Your task to perform on an android device: Clear all items from cart on newegg. Search for "beats solo 3" on newegg, select the first entry, and add it to the cart. Image 0: 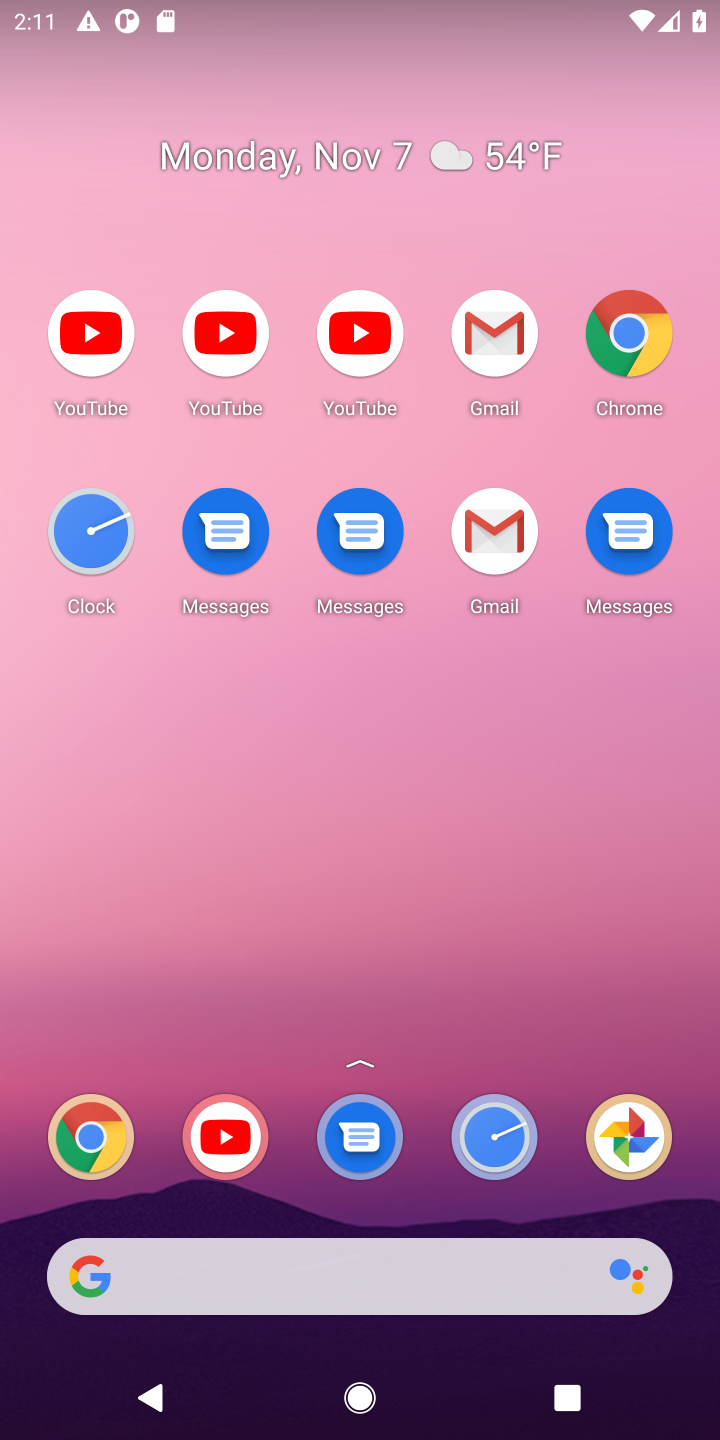
Step 0: drag from (431, 1058) to (338, 156)
Your task to perform on an android device: Clear all items from cart on newegg. Search for "beats solo 3" on newegg, select the first entry, and add it to the cart. Image 1: 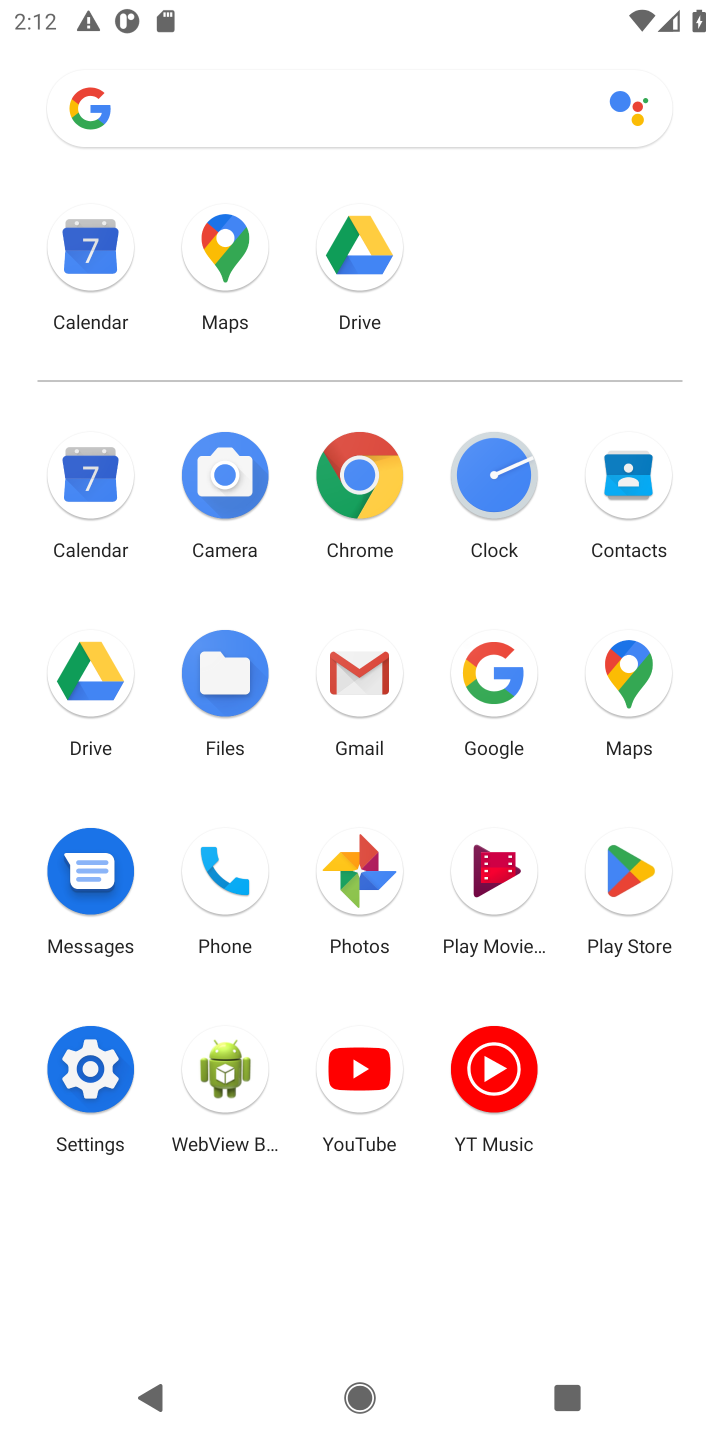
Step 1: click (351, 477)
Your task to perform on an android device: Clear all items from cart on newegg. Search for "beats solo 3" on newegg, select the first entry, and add it to the cart. Image 2: 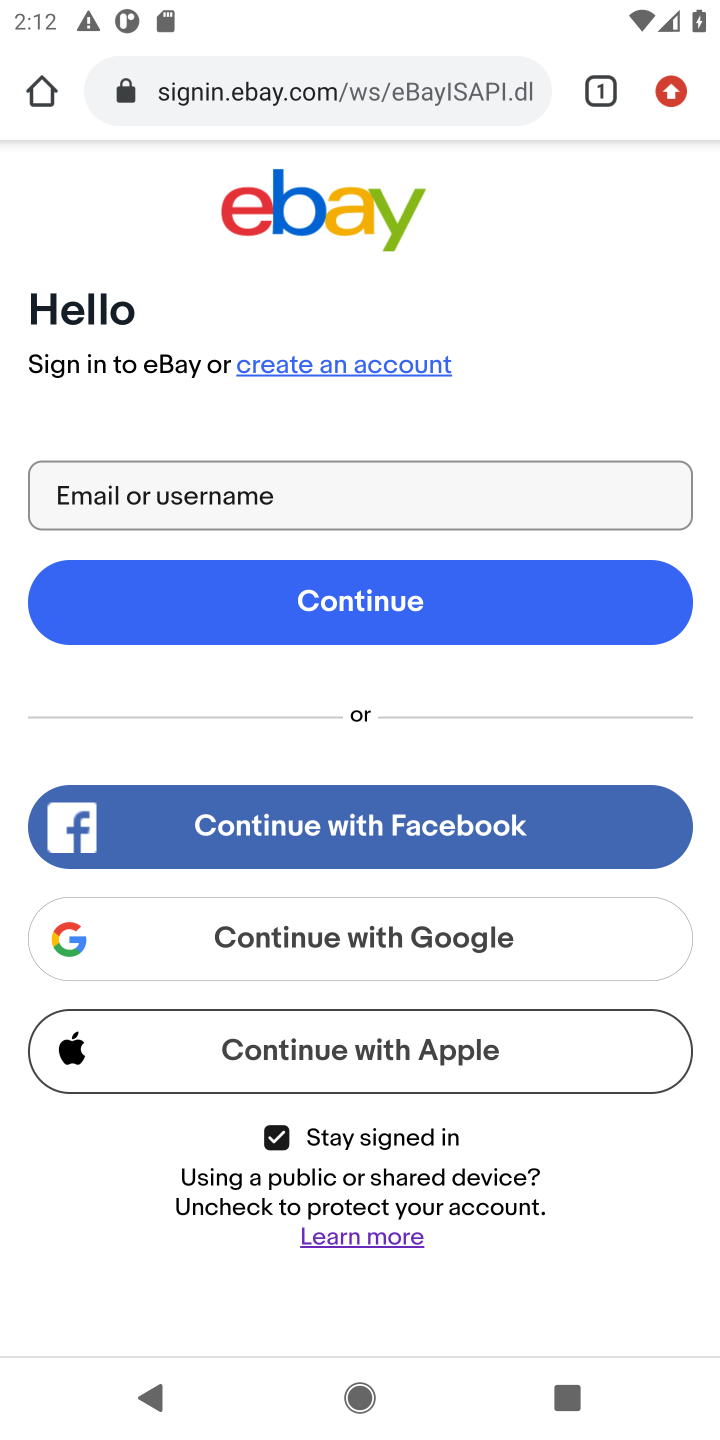
Step 2: click (470, 97)
Your task to perform on an android device: Clear all items from cart on newegg. Search for "beats solo 3" on newegg, select the first entry, and add it to the cart. Image 3: 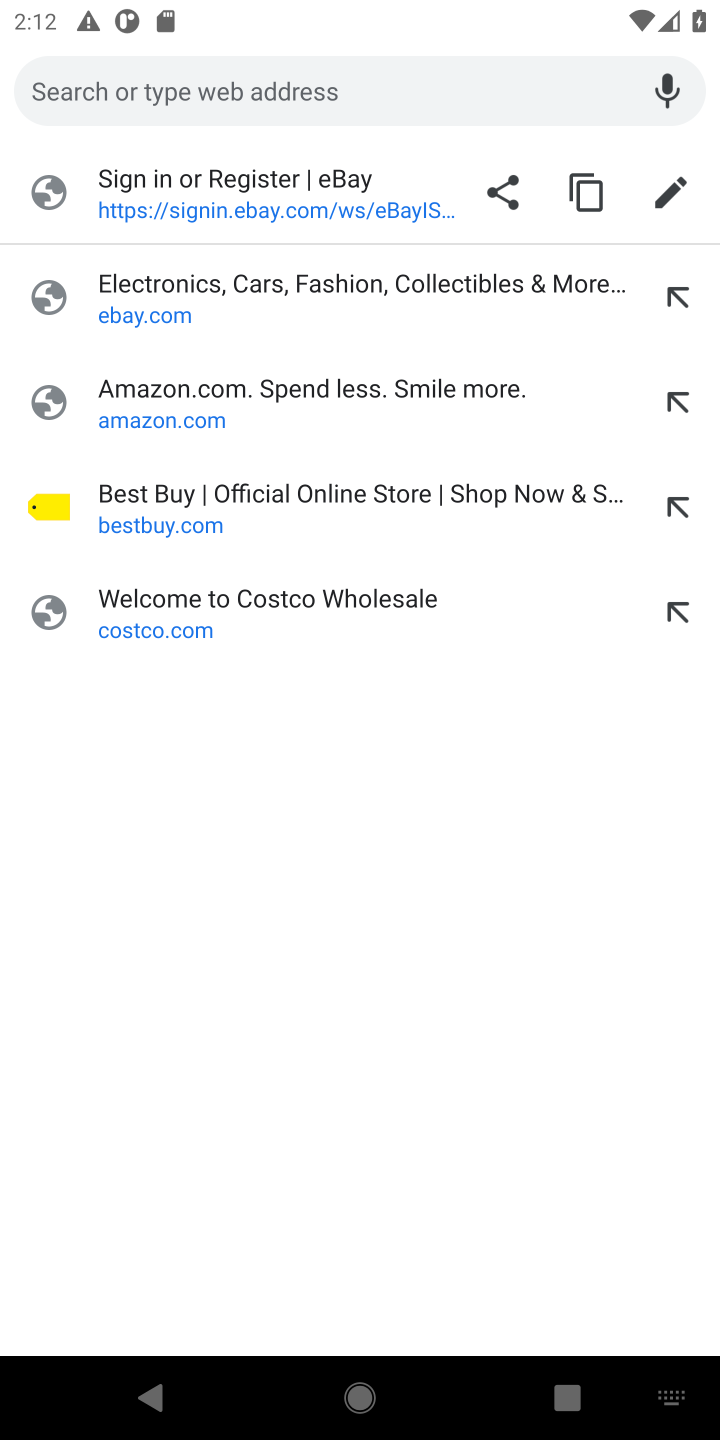
Step 3: type "newegg.com"
Your task to perform on an android device: Clear all items from cart on newegg. Search for "beats solo 3" on newegg, select the first entry, and add it to the cart. Image 4: 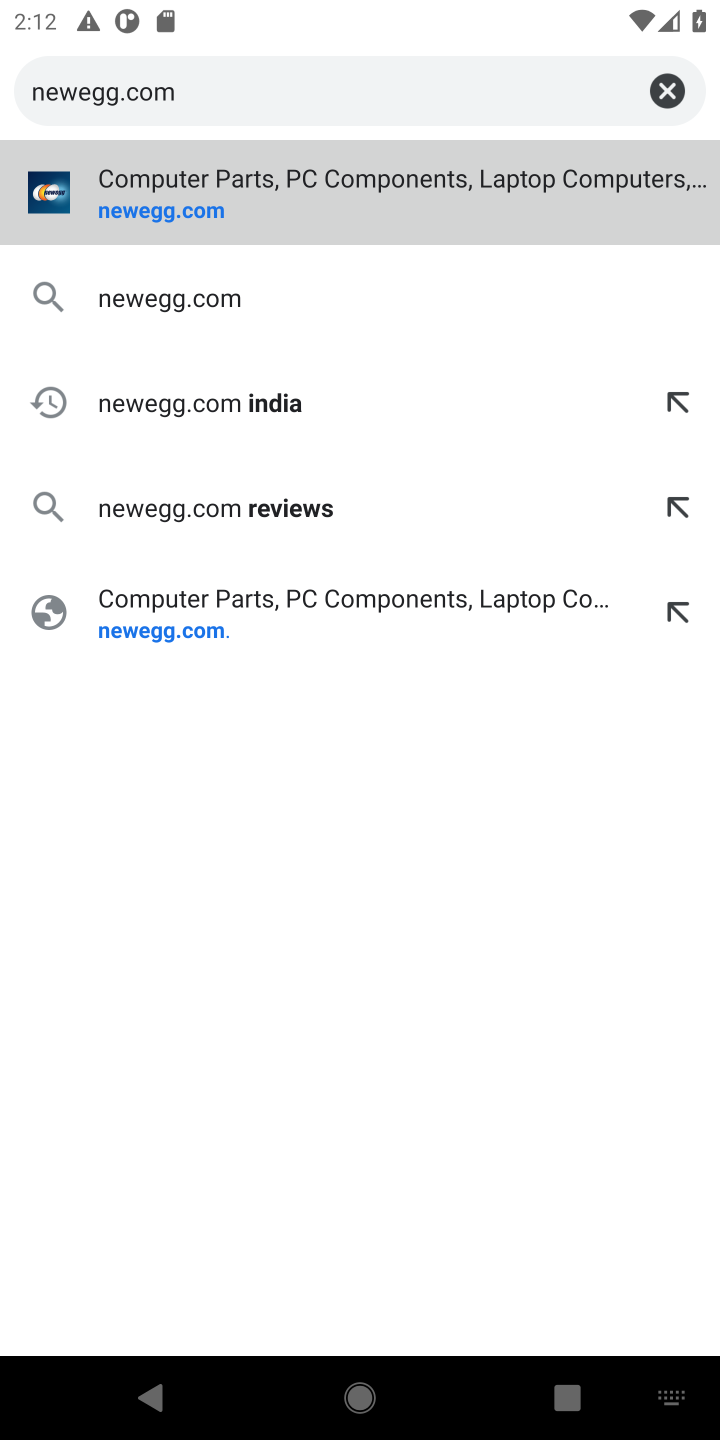
Step 4: press enter
Your task to perform on an android device: Clear all items from cart on newegg. Search for "beats solo 3" on newegg, select the first entry, and add it to the cart. Image 5: 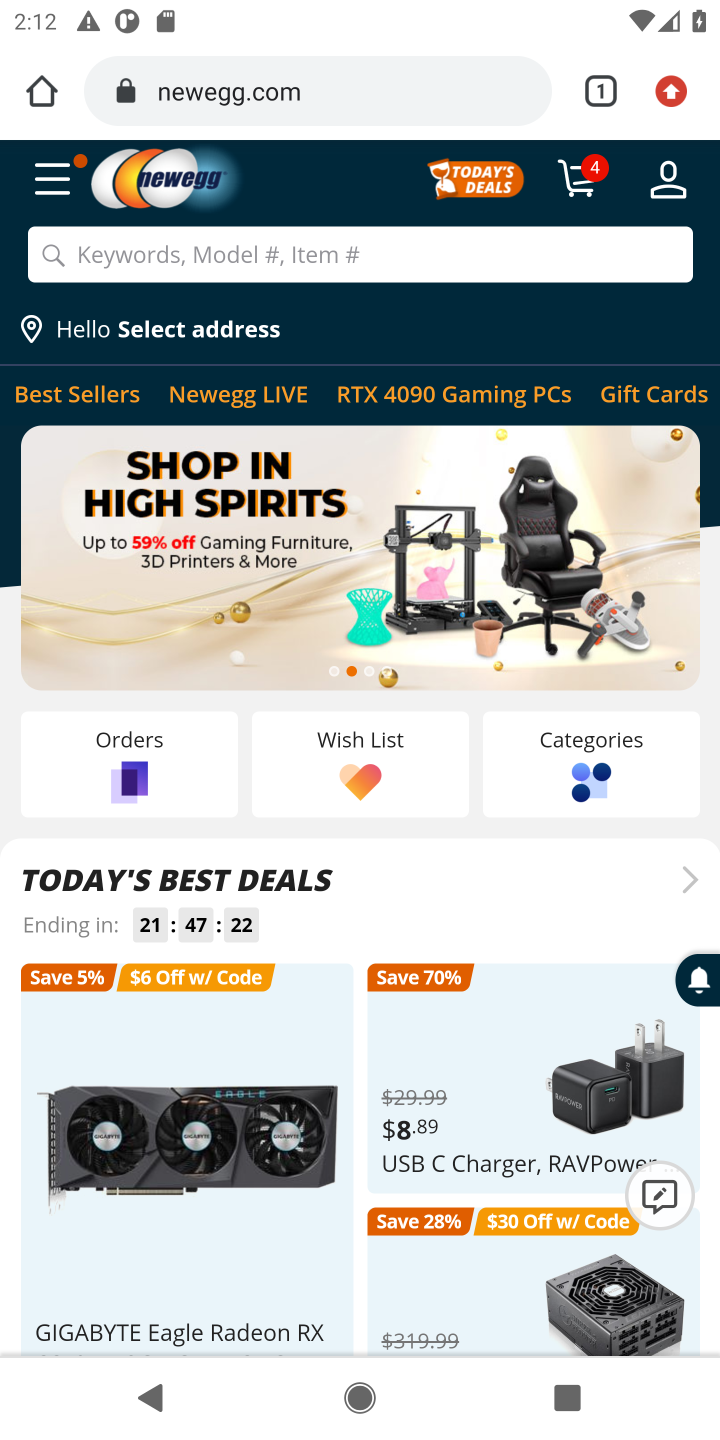
Step 5: click (588, 185)
Your task to perform on an android device: Clear all items from cart on newegg. Search for "beats solo 3" on newegg, select the first entry, and add it to the cart. Image 6: 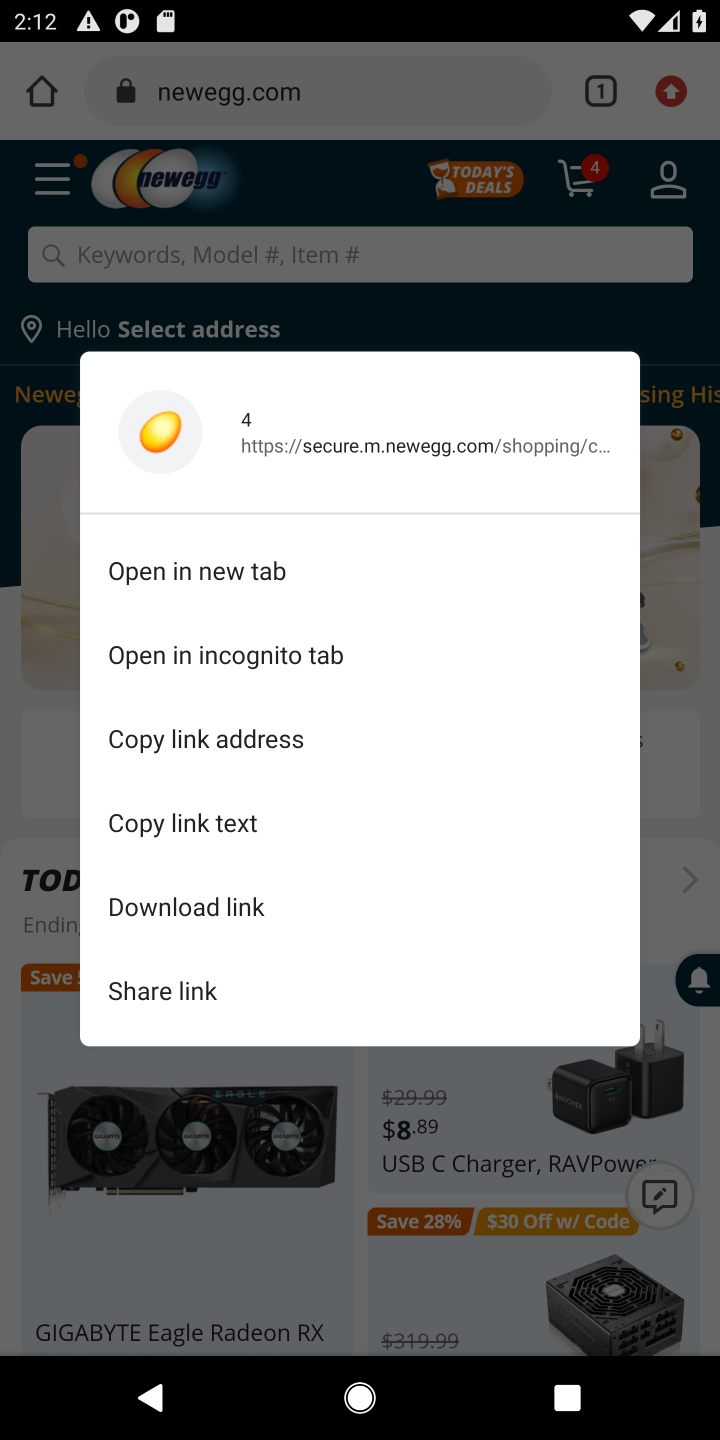
Step 6: click (677, 691)
Your task to perform on an android device: Clear all items from cart on newegg. Search for "beats solo 3" on newegg, select the first entry, and add it to the cart. Image 7: 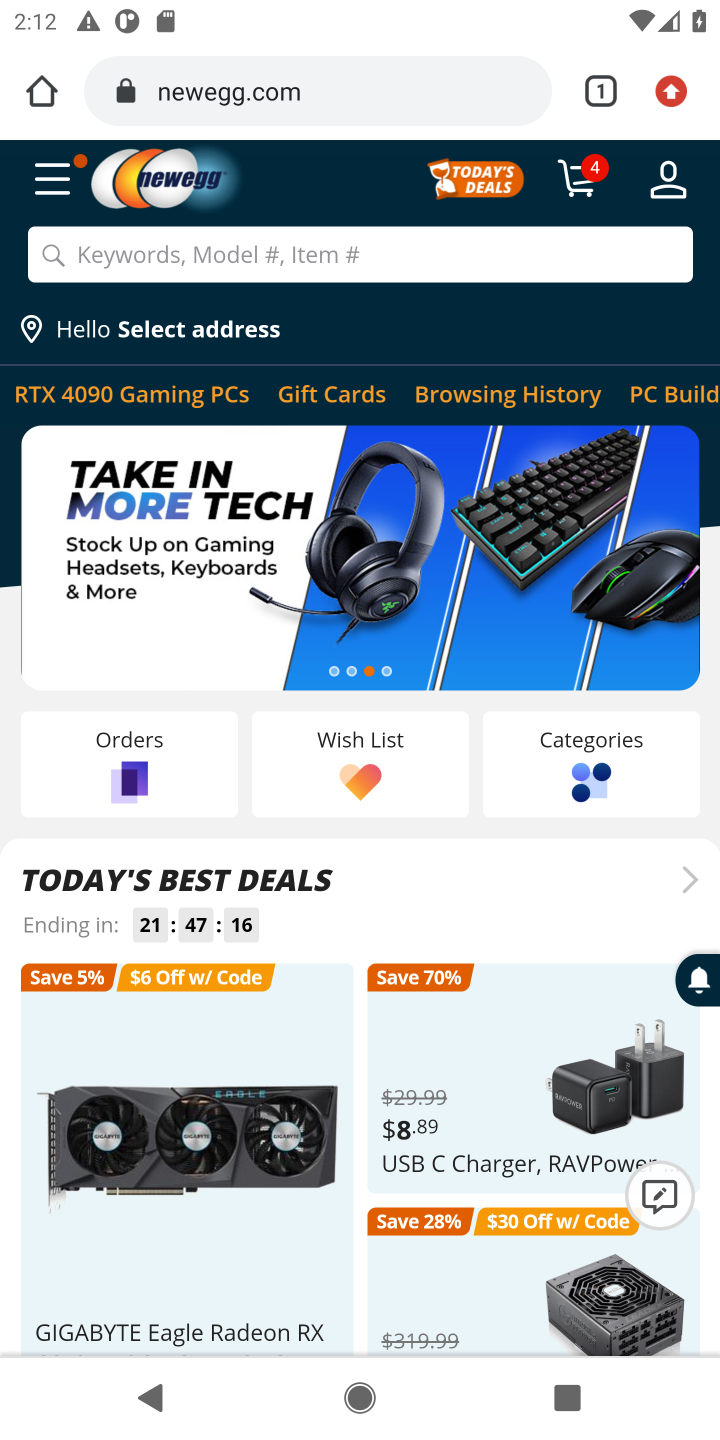
Step 7: click (580, 174)
Your task to perform on an android device: Clear all items from cart on newegg. Search for "beats solo 3" on newegg, select the first entry, and add it to the cart. Image 8: 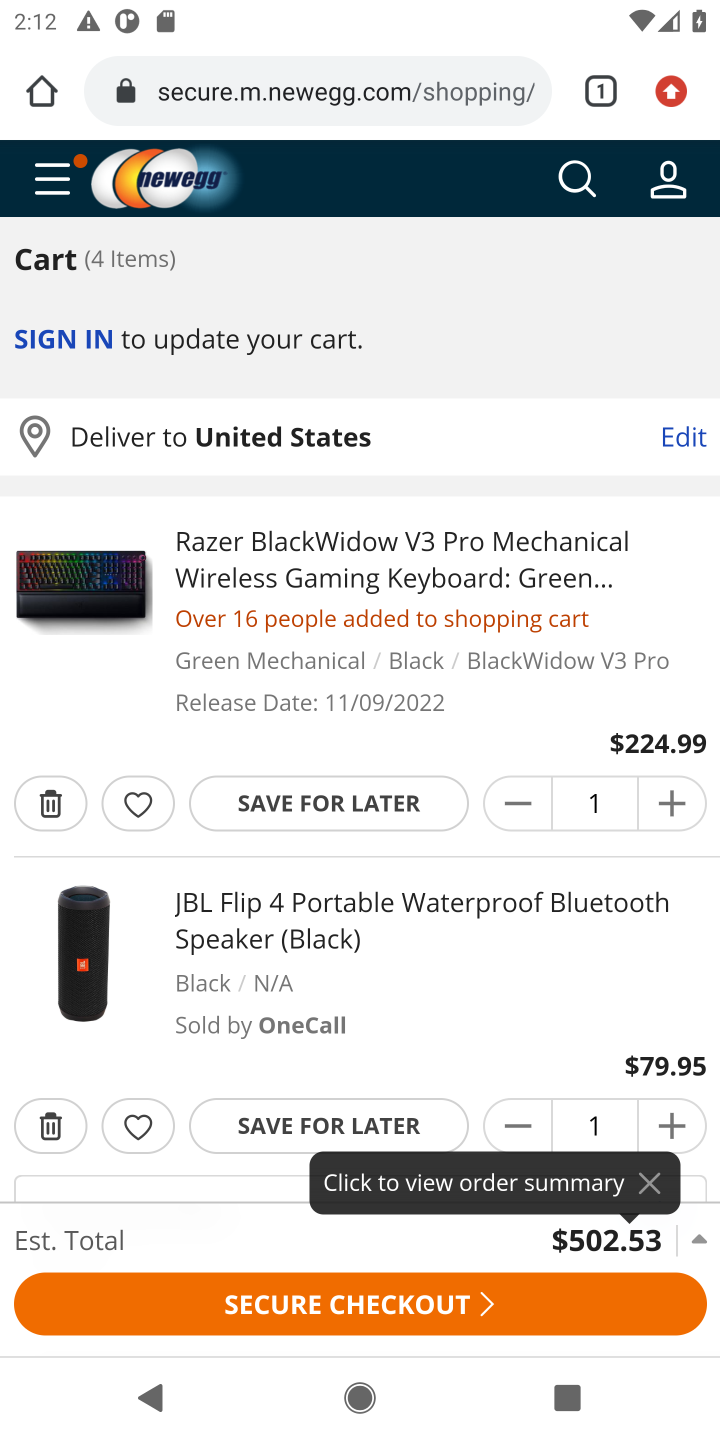
Step 8: click (58, 806)
Your task to perform on an android device: Clear all items from cart on newegg. Search for "beats solo 3" on newegg, select the first entry, and add it to the cart. Image 9: 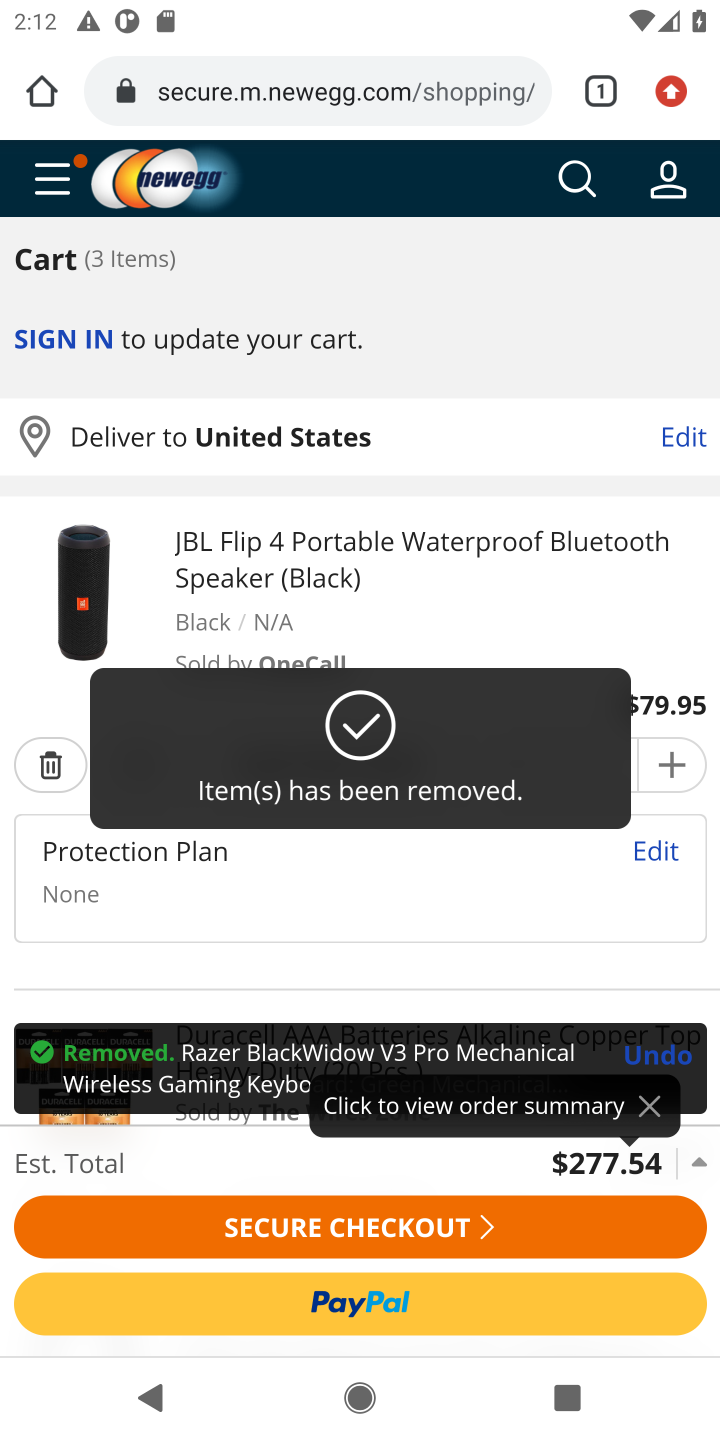
Step 9: click (54, 770)
Your task to perform on an android device: Clear all items from cart on newegg. Search for "beats solo 3" on newegg, select the first entry, and add it to the cart. Image 10: 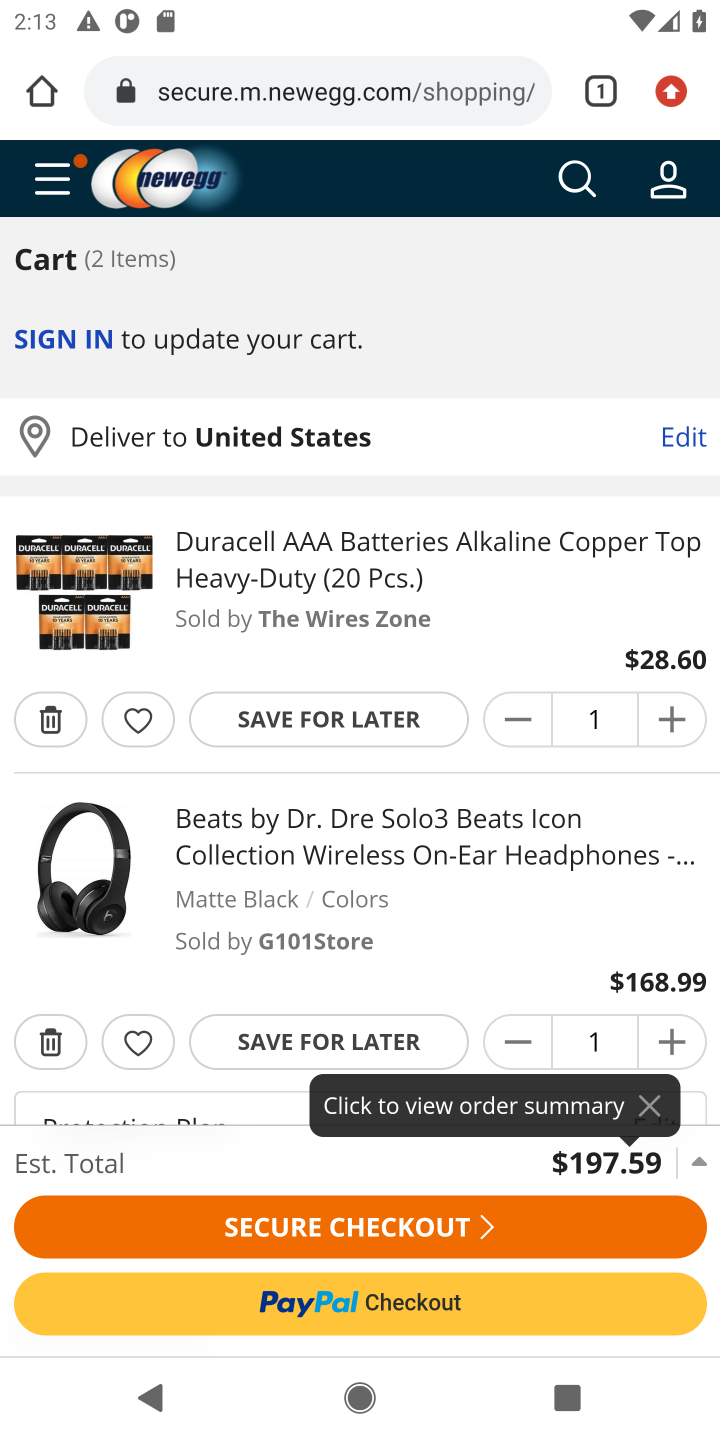
Step 10: click (55, 720)
Your task to perform on an android device: Clear all items from cart on newegg. Search for "beats solo 3" on newegg, select the first entry, and add it to the cart. Image 11: 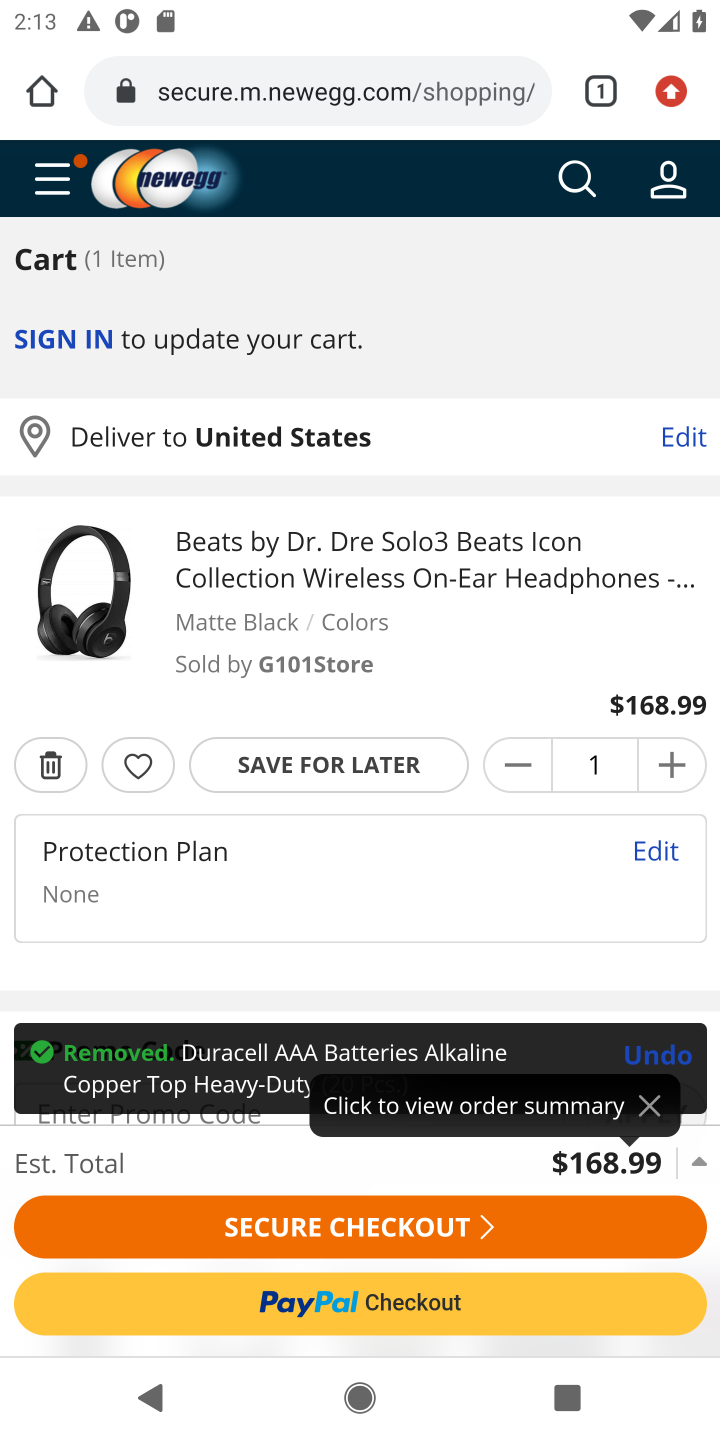
Step 11: click (54, 764)
Your task to perform on an android device: Clear all items from cart on newegg. Search for "beats solo 3" on newegg, select the first entry, and add it to the cart. Image 12: 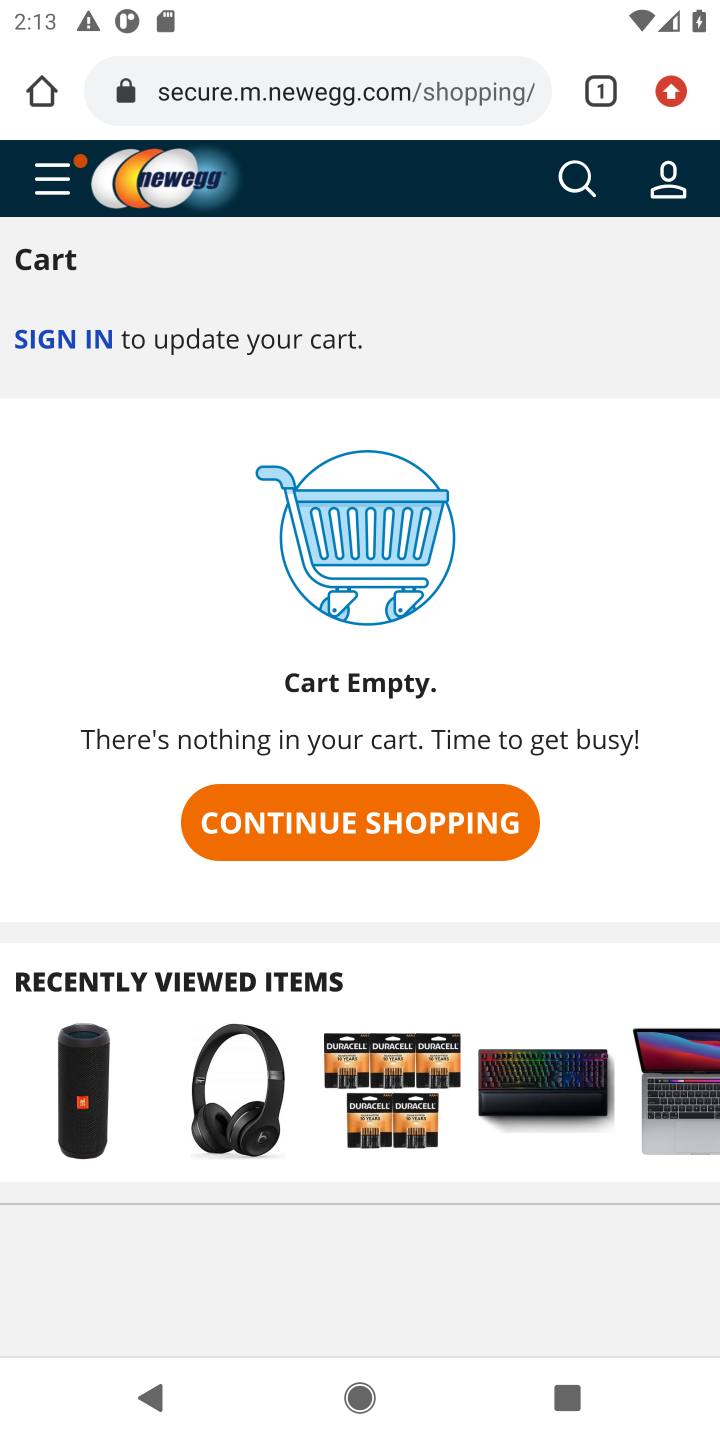
Step 12: click (391, 822)
Your task to perform on an android device: Clear all items from cart on newegg. Search for "beats solo 3" on newegg, select the first entry, and add it to the cart. Image 13: 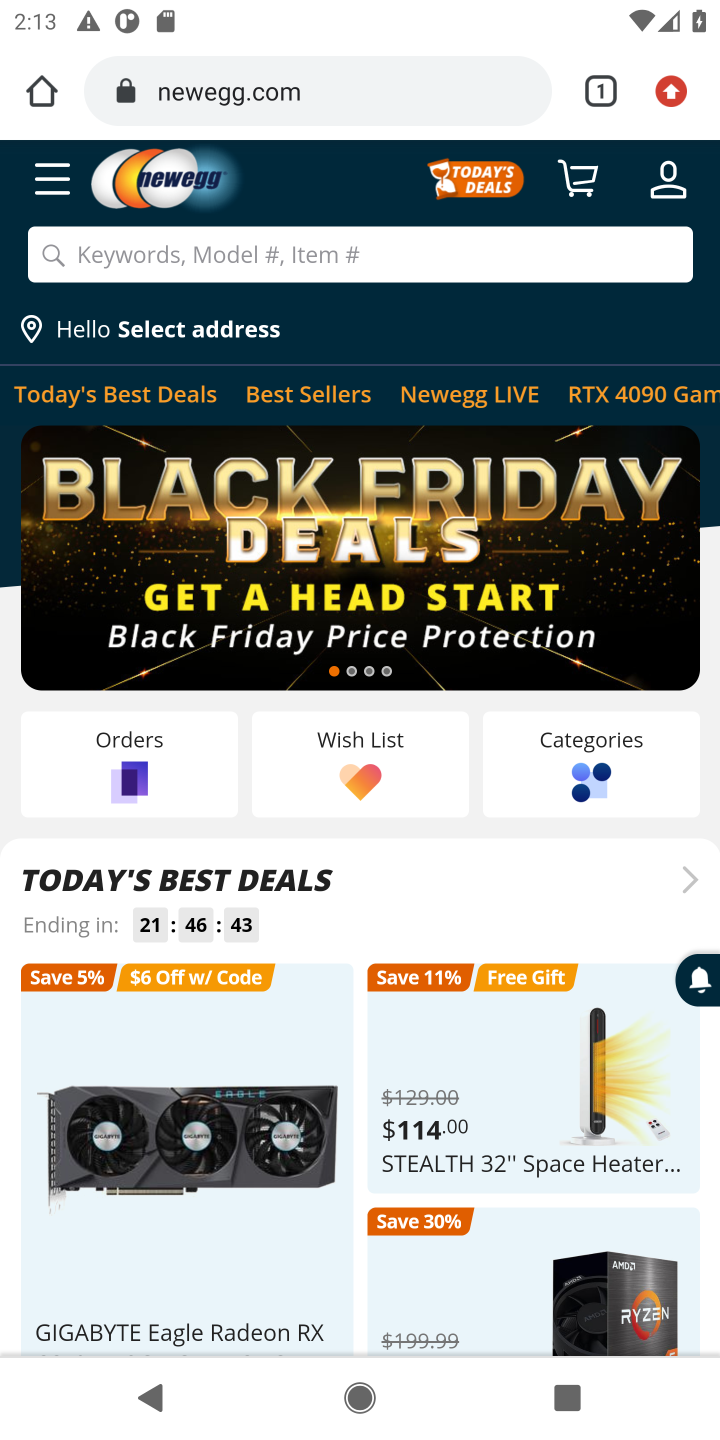
Step 13: click (337, 262)
Your task to perform on an android device: Clear all items from cart on newegg. Search for "beats solo 3" on newegg, select the first entry, and add it to the cart. Image 14: 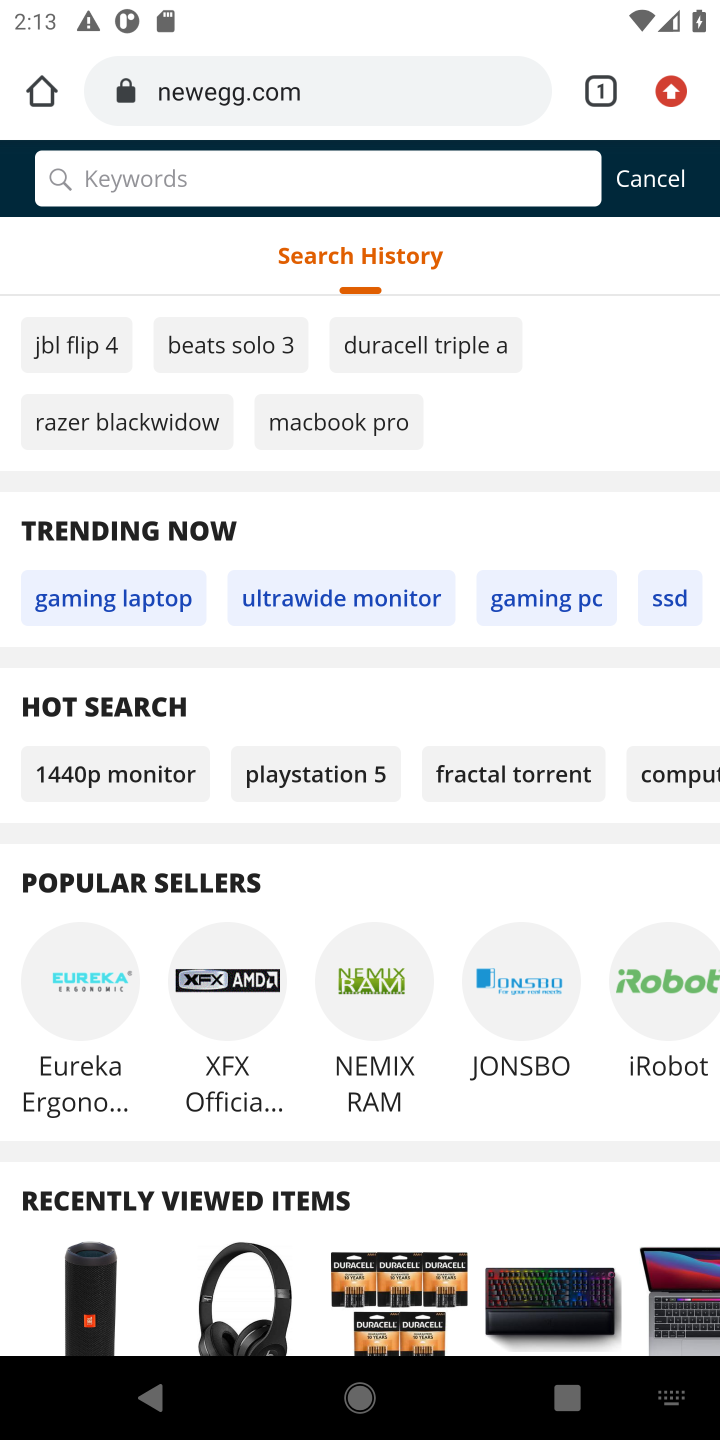
Step 14: type "beats solo 3"
Your task to perform on an android device: Clear all items from cart on newegg. Search for "beats solo 3" on newegg, select the first entry, and add it to the cart. Image 15: 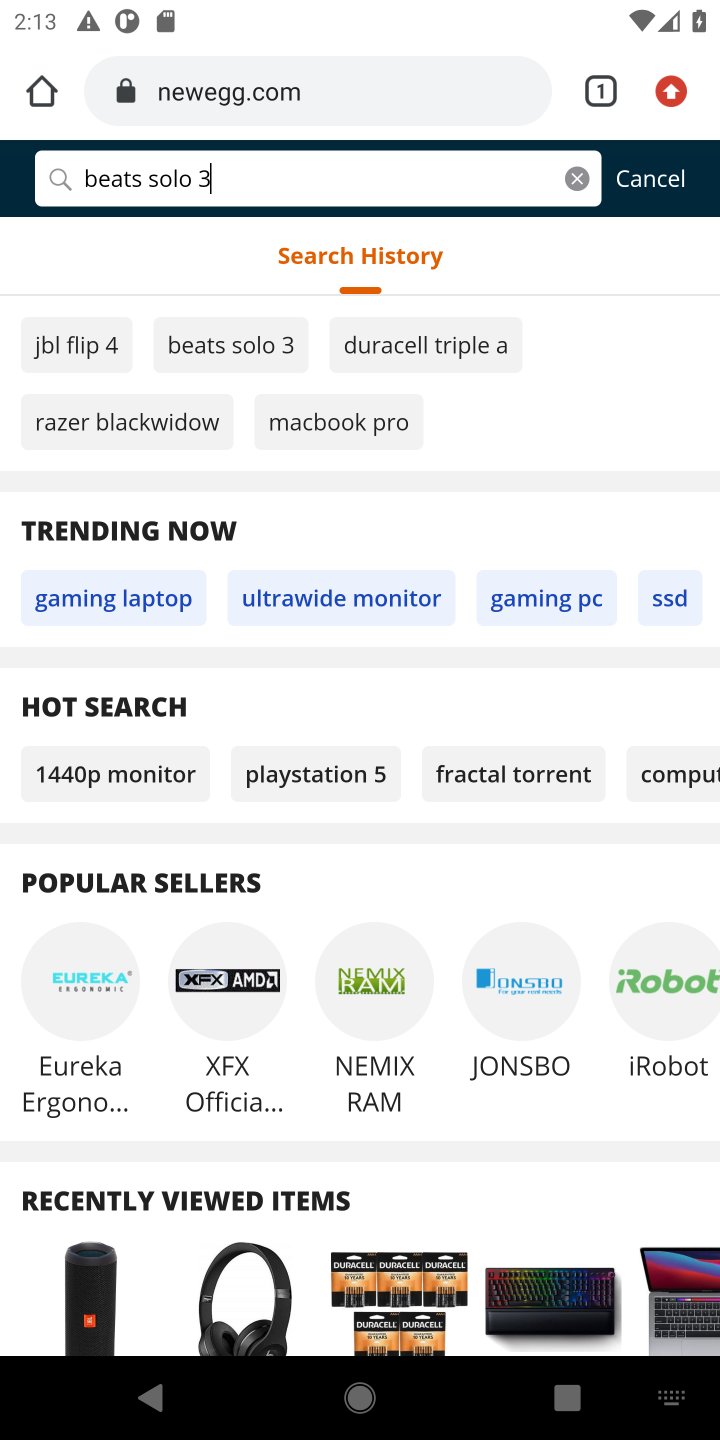
Step 15: press enter
Your task to perform on an android device: Clear all items from cart on newegg. Search for "beats solo 3" on newegg, select the first entry, and add it to the cart. Image 16: 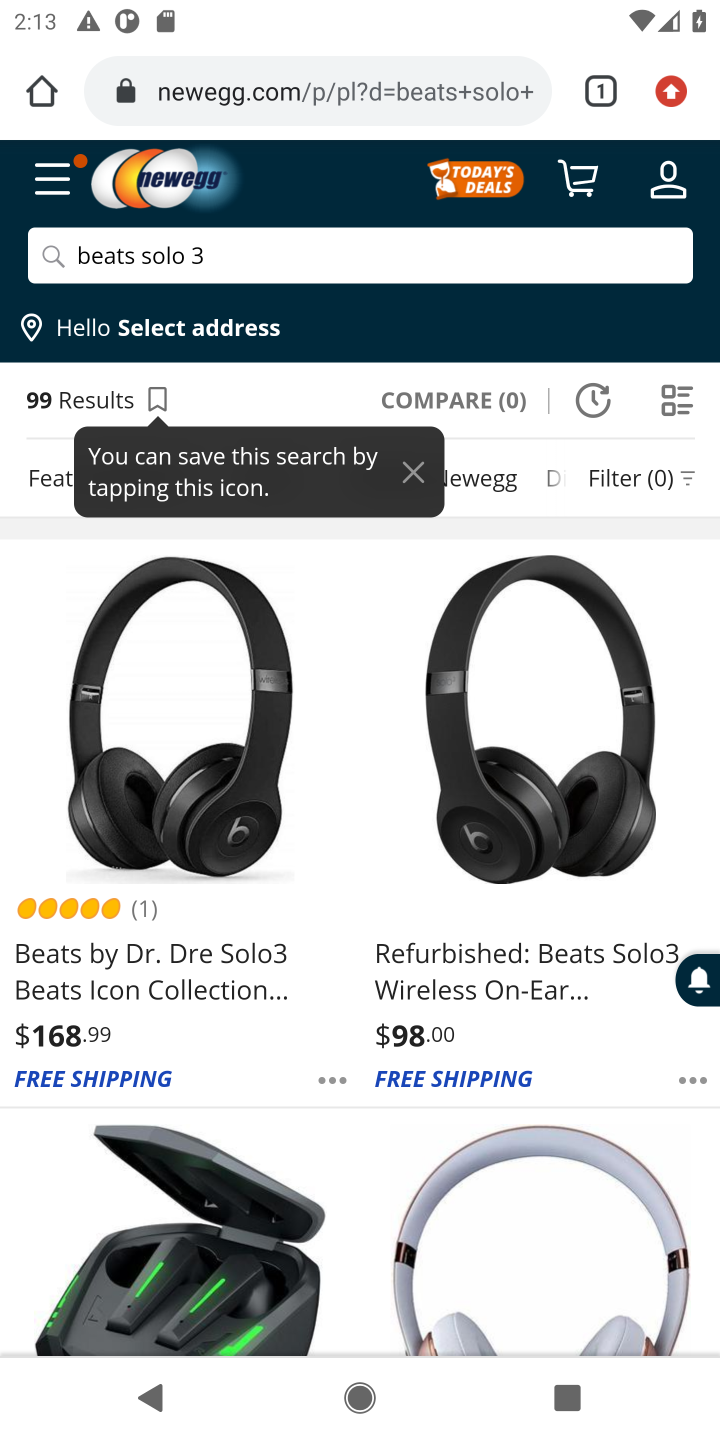
Step 16: click (184, 752)
Your task to perform on an android device: Clear all items from cart on newegg. Search for "beats solo 3" on newegg, select the first entry, and add it to the cart. Image 17: 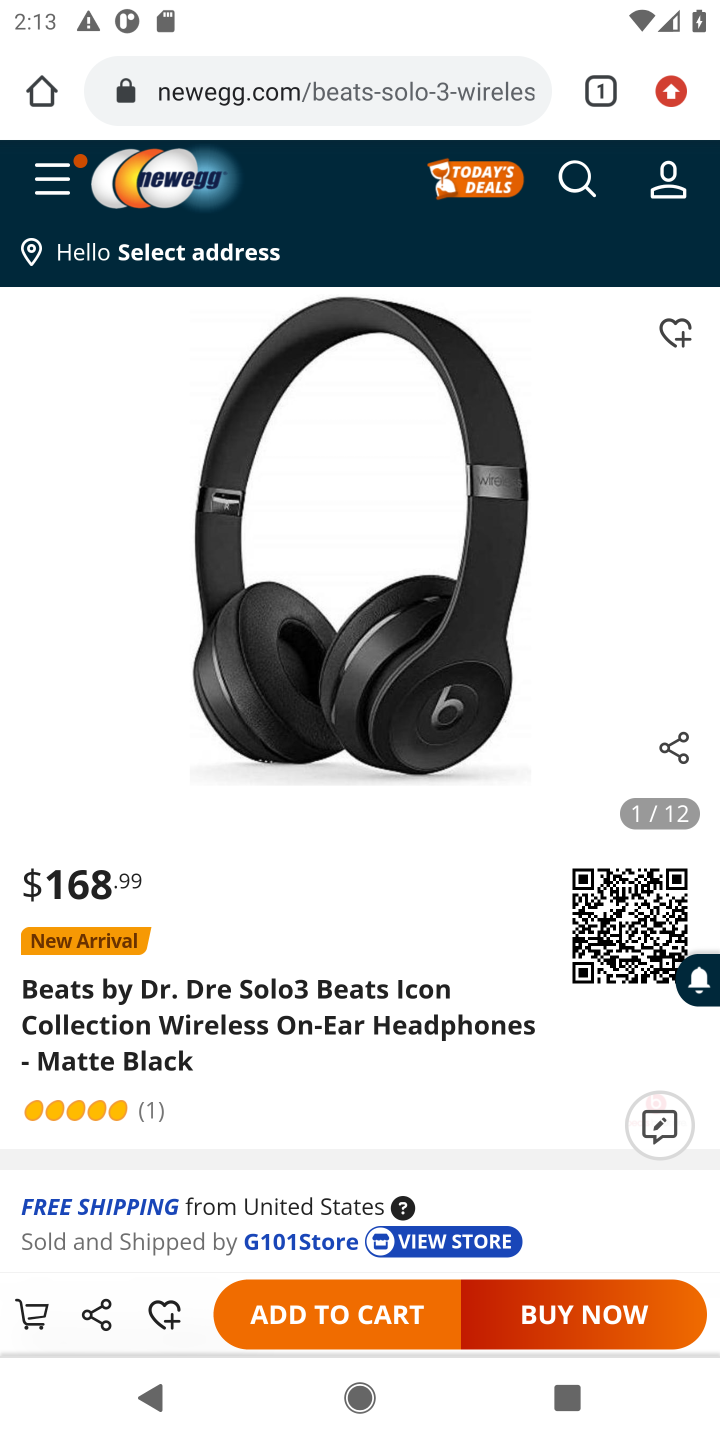
Step 17: click (349, 1313)
Your task to perform on an android device: Clear all items from cart on newegg. Search for "beats solo 3" on newegg, select the first entry, and add it to the cart. Image 18: 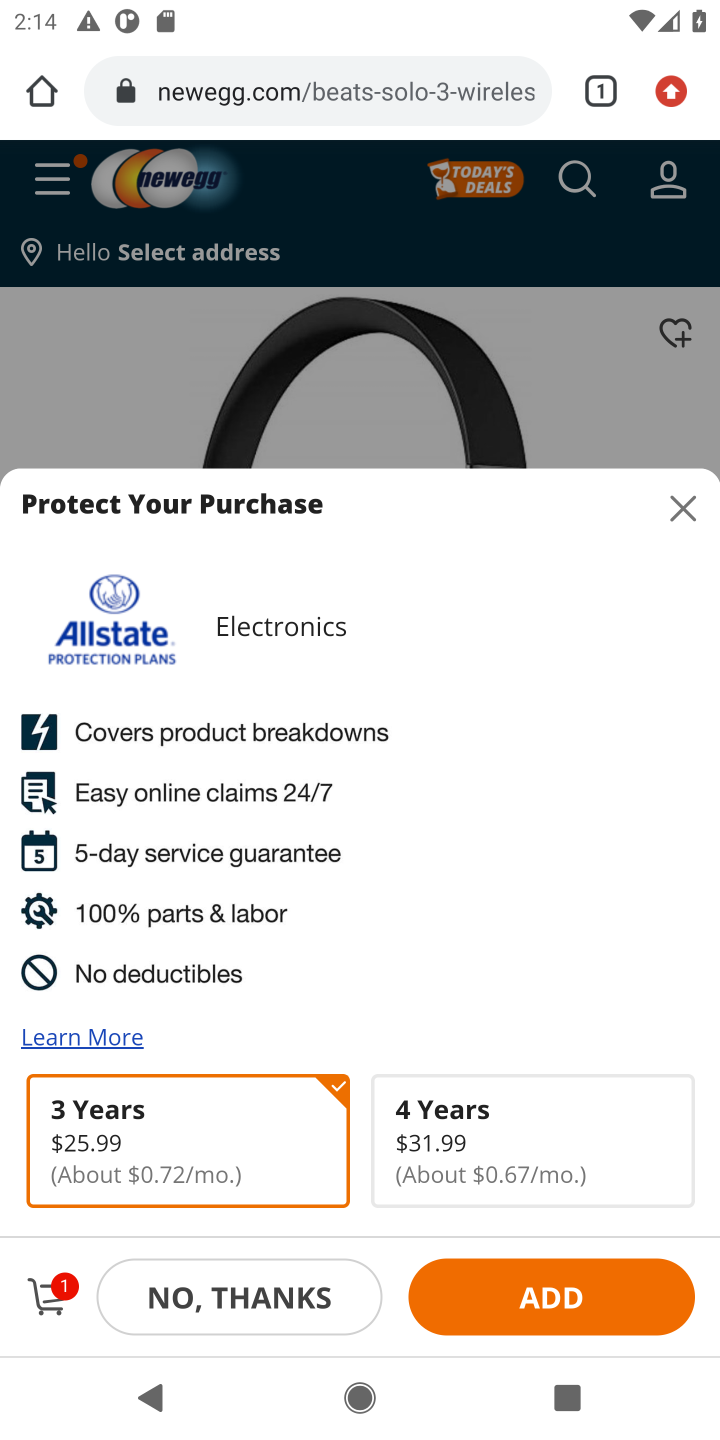
Step 18: task complete